Your task to perform on an android device: turn off wifi Image 0: 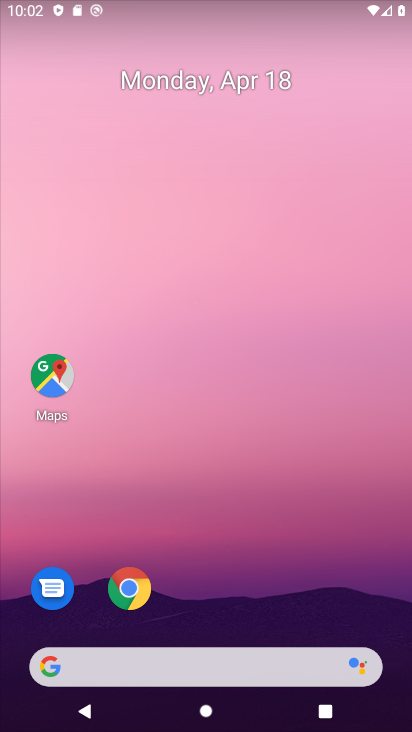
Step 0: drag from (304, 600) to (289, 32)
Your task to perform on an android device: turn off wifi Image 1: 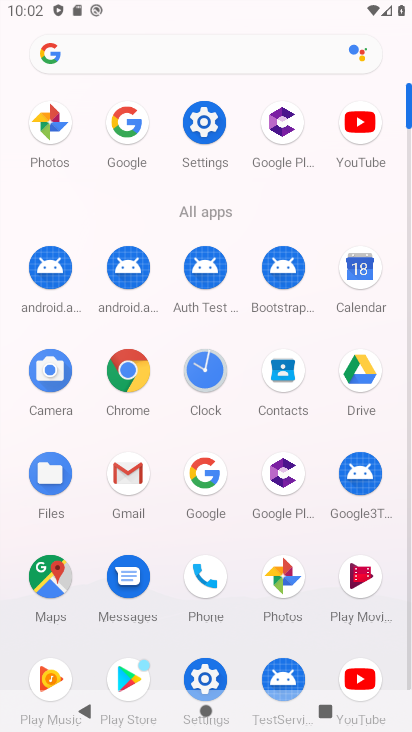
Step 1: click (211, 121)
Your task to perform on an android device: turn off wifi Image 2: 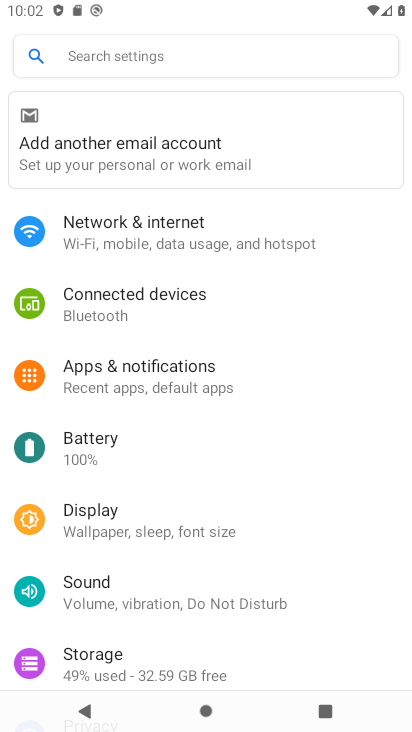
Step 2: click (223, 217)
Your task to perform on an android device: turn off wifi Image 3: 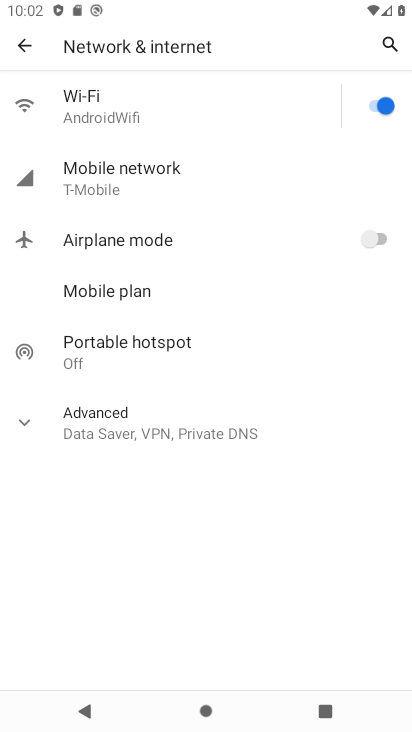
Step 3: click (368, 104)
Your task to perform on an android device: turn off wifi Image 4: 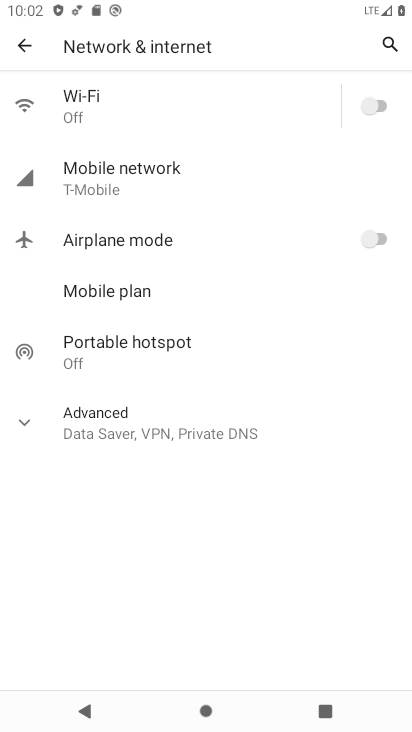
Step 4: task complete